Your task to perform on an android device: turn on translation in the chrome app Image 0: 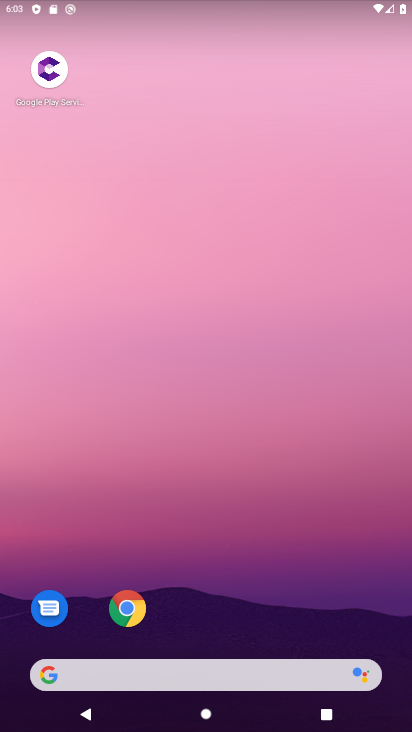
Step 0: click (347, 347)
Your task to perform on an android device: turn on translation in the chrome app Image 1: 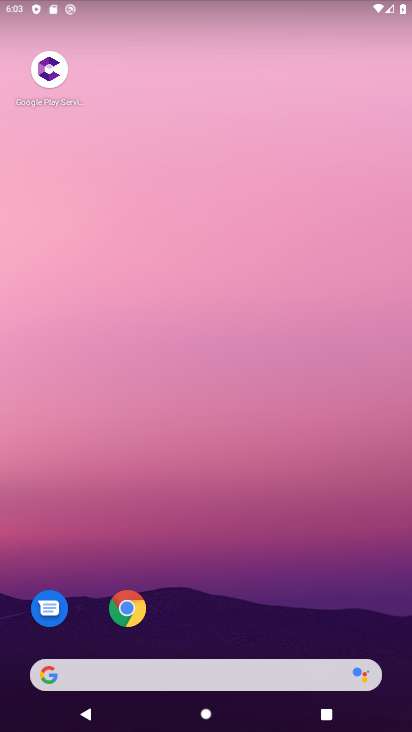
Step 1: click (132, 607)
Your task to perform on an android device: turn on translation in the chrome app Image 2: 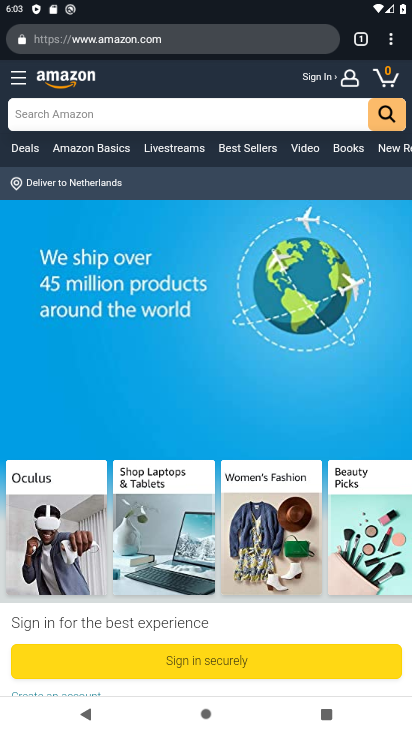
Step 2: click (395, 38)
Your task to perform on an android device: turn on translation in the chrome app Image 3: 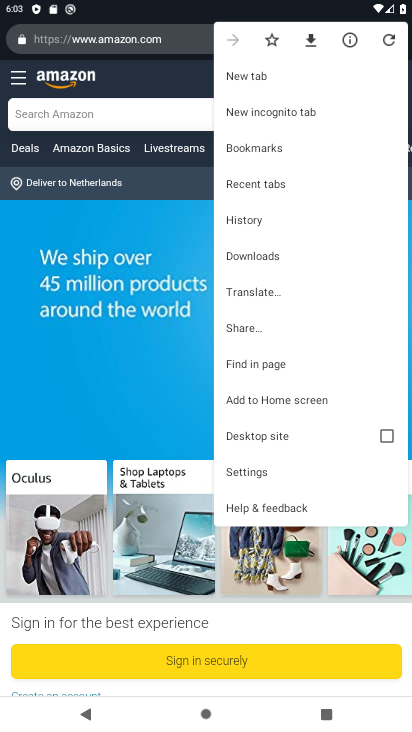
Step 3: click (254, 472)
Your task to perform on an android device: turn on translation in the chrome app Image 4: 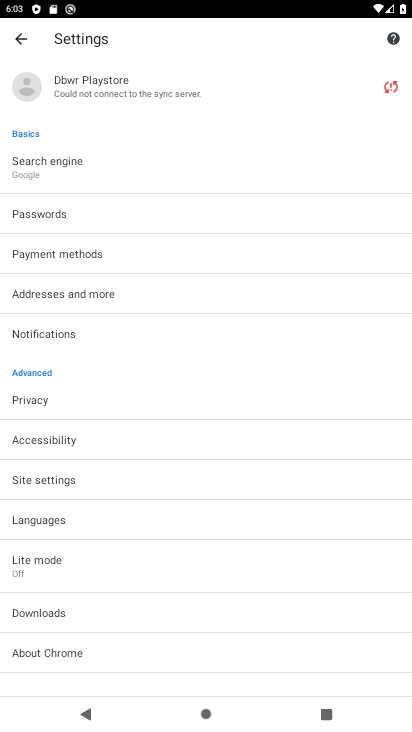
Step 4: click (40, 528)
Your task to perform on an android device: turn on translation in the chrome app Image 5: 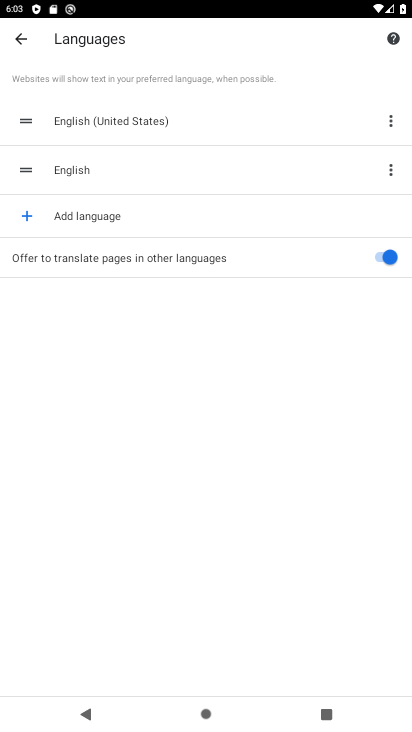
Step 5: task complete